Your task to perform on an android device: toggle show notifications on the lock screen Image 0: 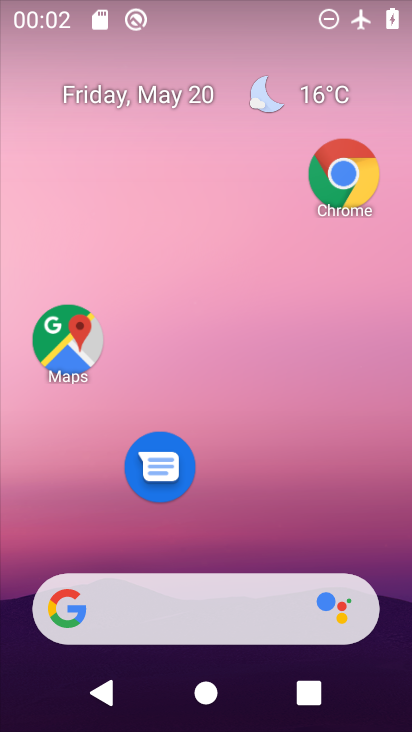
Step 0: drag from (248, 553) to (217, 252)
Your task to perform on an android device: toggle show notifications on the lock screen Image 1: 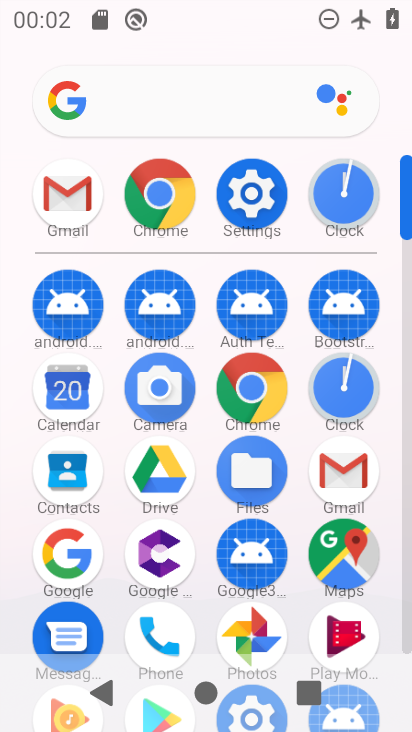
Step 1: click (238, 195)
Your task to perform on an android device: toggle show notifications on the lock screen Image 2: 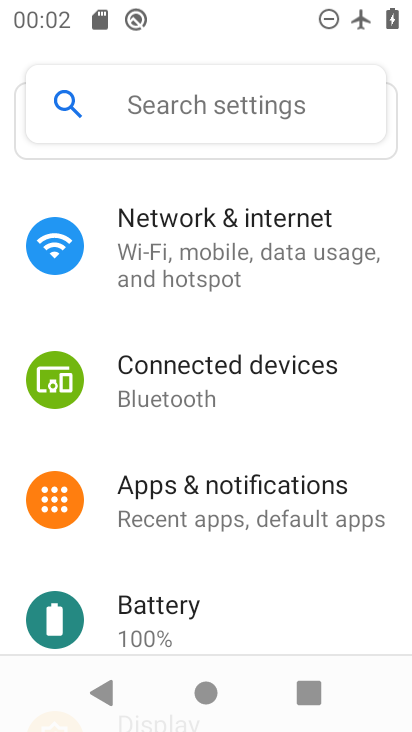
Step 2: drag from (149, 520) to (154, 352)
Your task to perform on an android device: toggle show notifications on the lock screen Image 3: 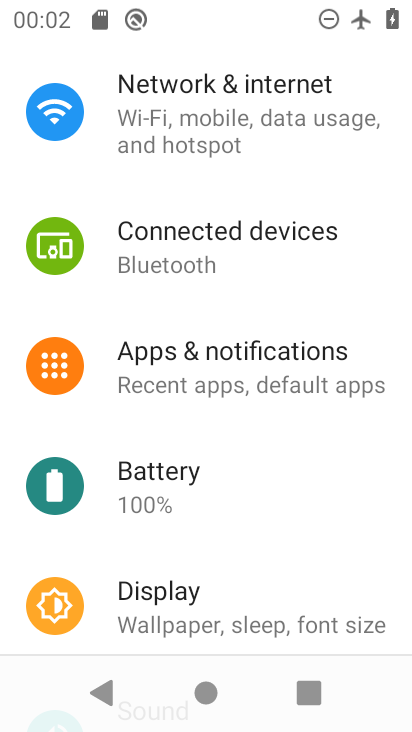
Step 3: click (237, 345)
Your task to perform on an android device: toggle show notifications on the lock screen Image 4: 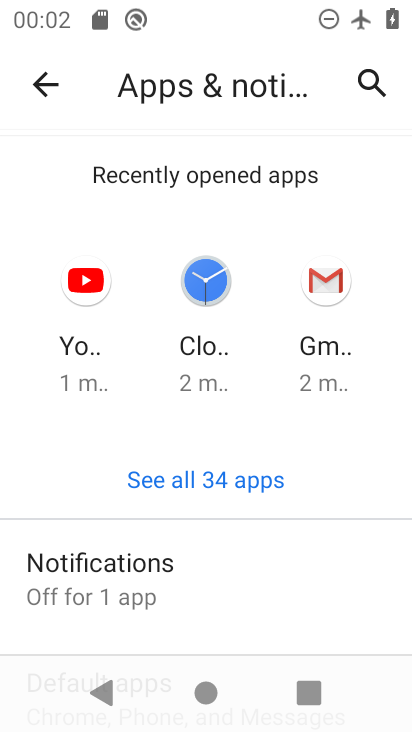
Step 4: click (147, 568)
Your task to perform on an android device: toggle show notifications on the lock screen Image 5: 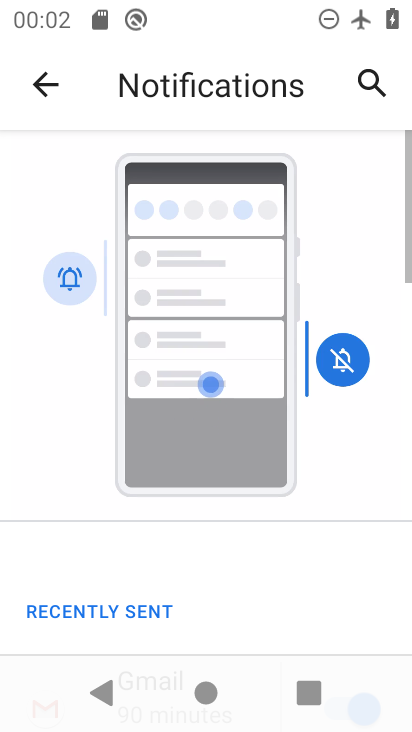
Step 5: drag from (228, 532) to (294, 96)
Your task to perform on an android device: toggle show notifications on the lock screen Image 6: 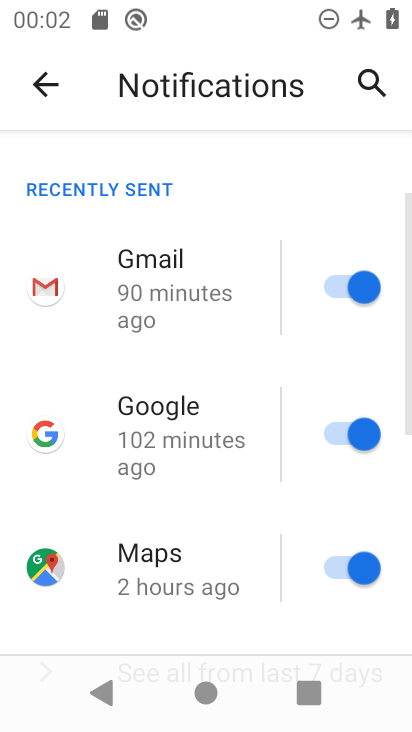
Step 6: drag from (202, 550) to (238, 197)
Your task to perform on an android device: toggle show notifications on the lock screen Image 7: 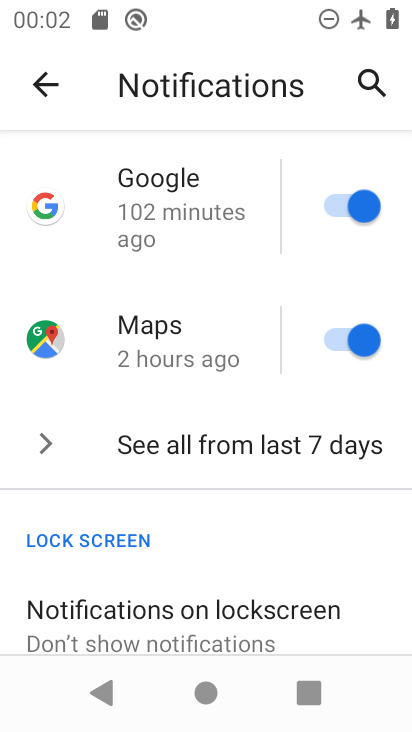
Step 7: click (211, 609)
Your task to perform on an android device: toggle show notifications on the lock screen Image 8: 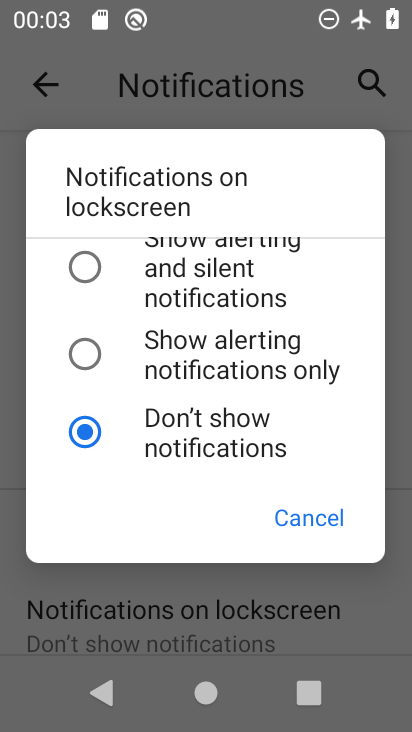
Step 8: click (175, 270)
Your task to perform on an android device: toggle show notifications on the lock screen Image 9: 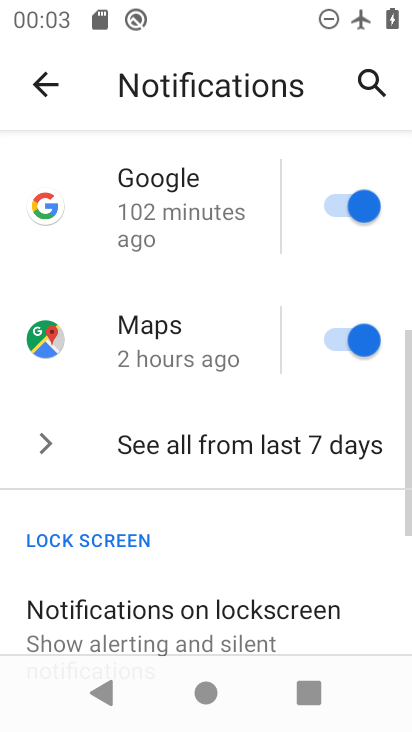
Step 9: task complete